Your task to perform on an android device: Open calendar and show me the third week of next month Image 0: 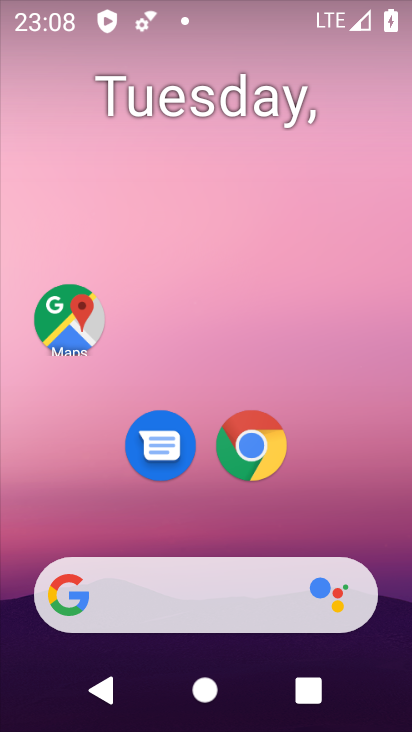
Step 0: drag from (298, 535) to (308, 58)
Your task to perform on an android device: Open calendar and show me the third week of next month Image 1: 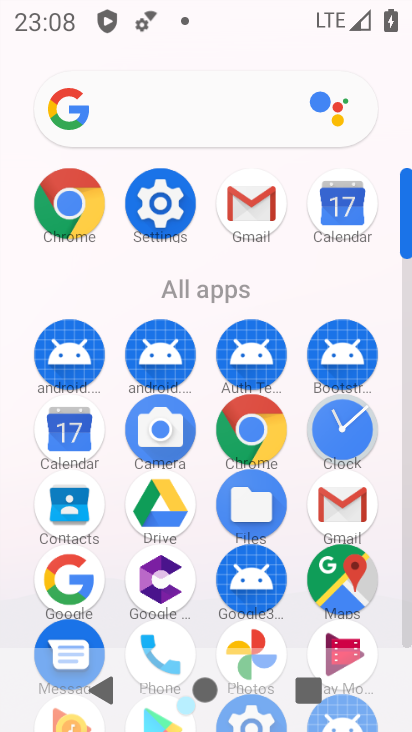
Step 1: click (54, 447)
Your task to perform on an android device: Open calendar and show me the third week of next month Image 2: 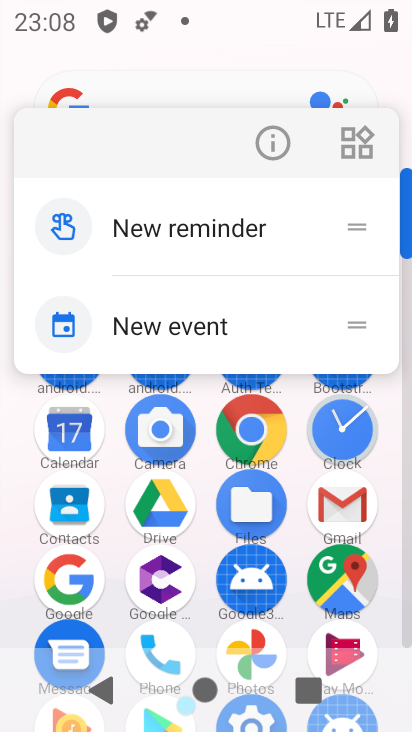
Step 2: click (61, 439)
Your task to perform on an android device: Open calendar and show me the third week of next month Image 3: 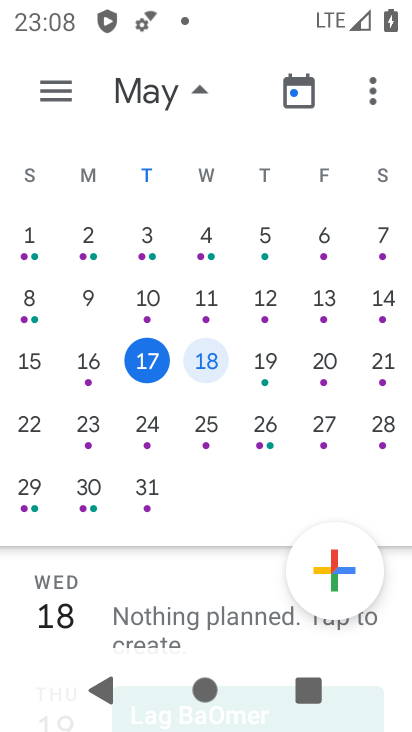
Step 3: drag from (376, 361) to (67, 303)
Your task to perform on an android device: Open calendar and show me the third week of next month Image 4: 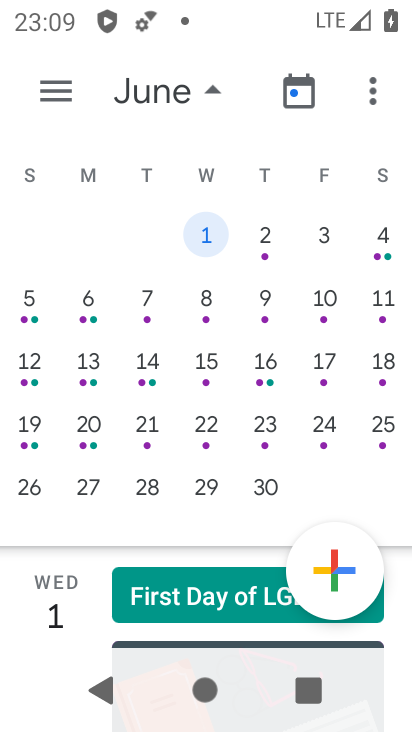
Step 4: click (38, 366)
Your task to perform on an android device: Open calendar and show me the third week of next month Image 5: 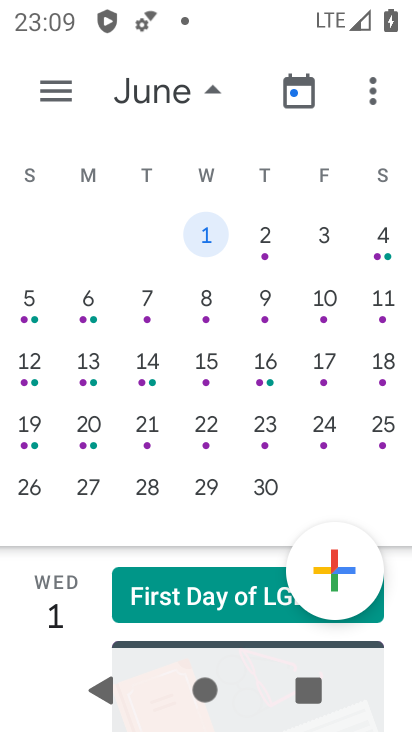
Step 5: click (32, 384)
Your task to perform on an android device: Open calendar and show me the third week of next month Image 6: 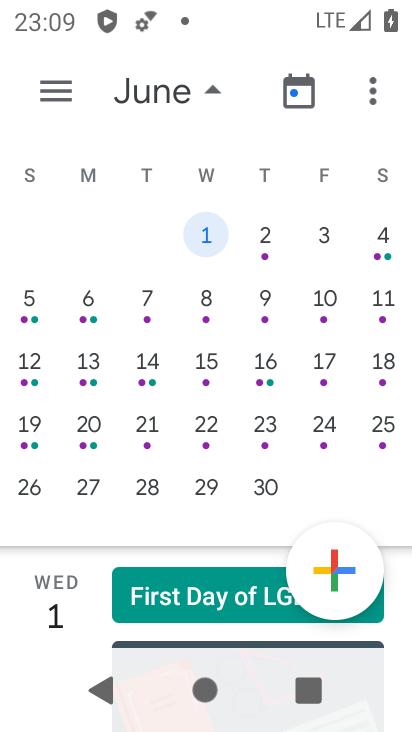
Step 6: click (47, 379)
Your task to perform on an android device: Open calendar and show me the third week of next month Image 7: 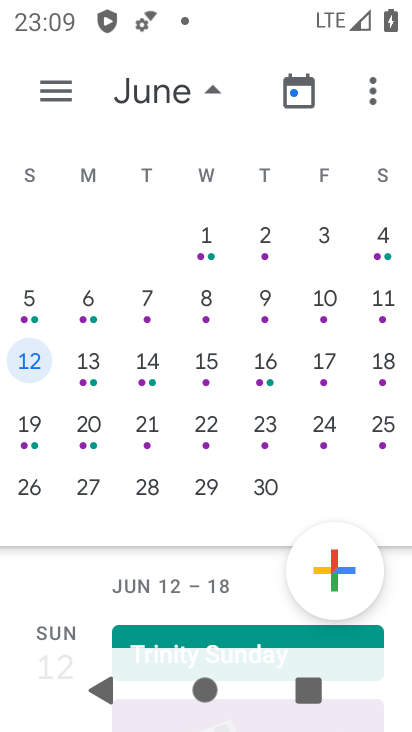
Step 7: task complete